Your task to perform on an android device: turn off javascript in the chrome app Image 0: 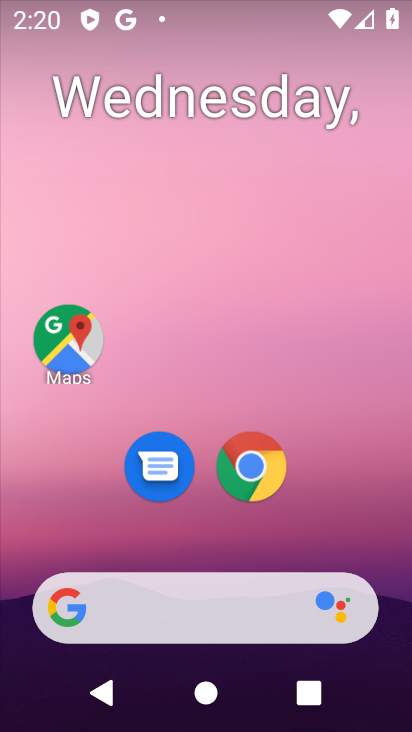
Step 0: click (259, 473)
Your task to perform on an android device: turn off javascript in the chrome app Image 1: 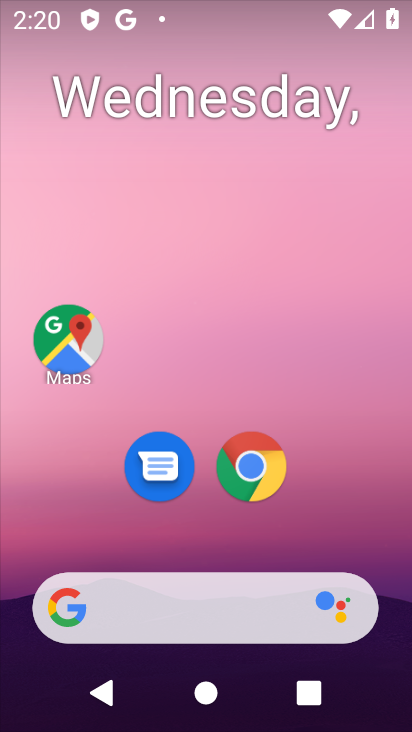
Step 1: click (259, 473)
Your task to perform on an android device: turn off javascript in the chrome app Image 2: 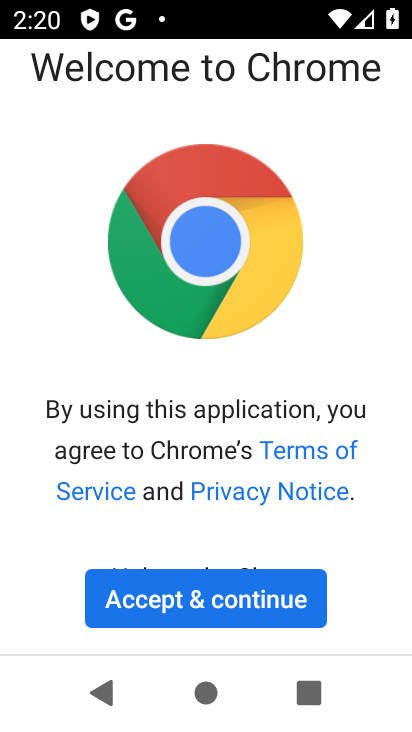
Step 2: click (243, 590)
Your task to perform on an android device: turn off javascript in the chrome app Image 3: 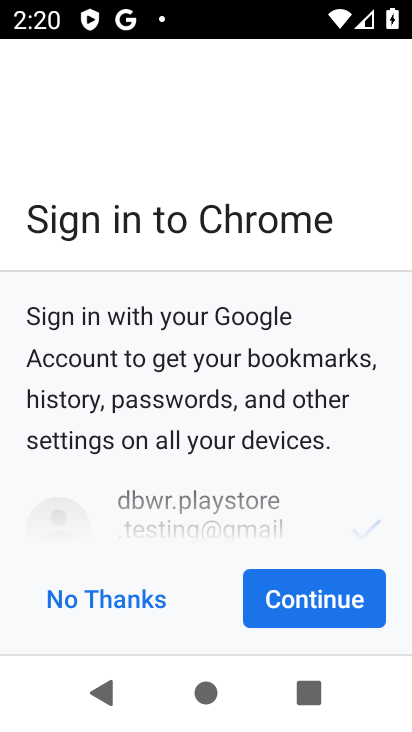
Step 3: click (273, 597)
Your task to perform on an android device: turn off javascript in the chrome app Image 4: 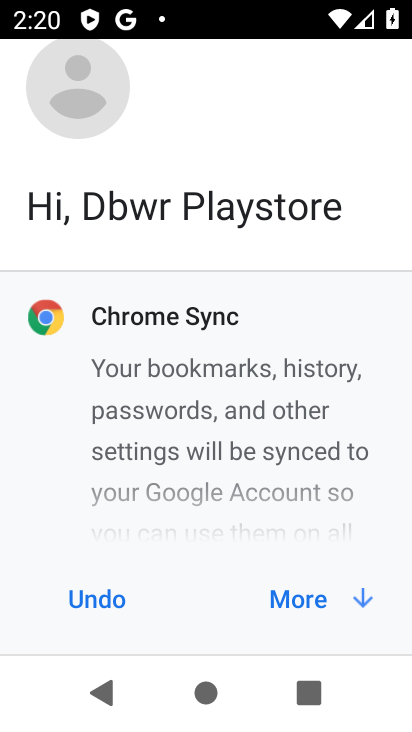
Step 4: click (273, 597)
Your task to perform on an android device: turn off javascript in the chrome app Image 5: 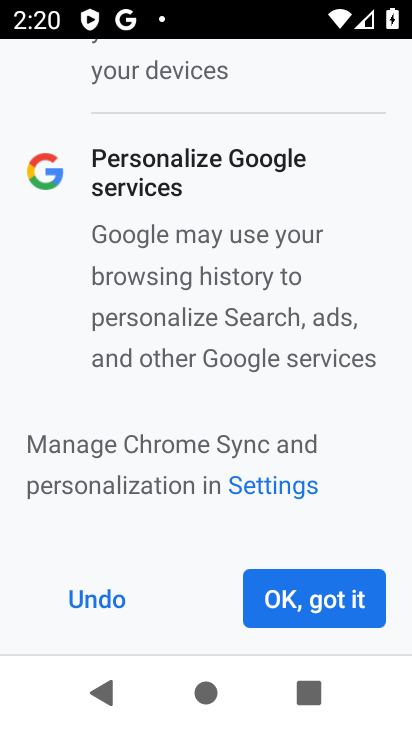
Step 5: click (273, 597)
Your task to perform on an android device: turn off javascript in the chrome app Image 6: 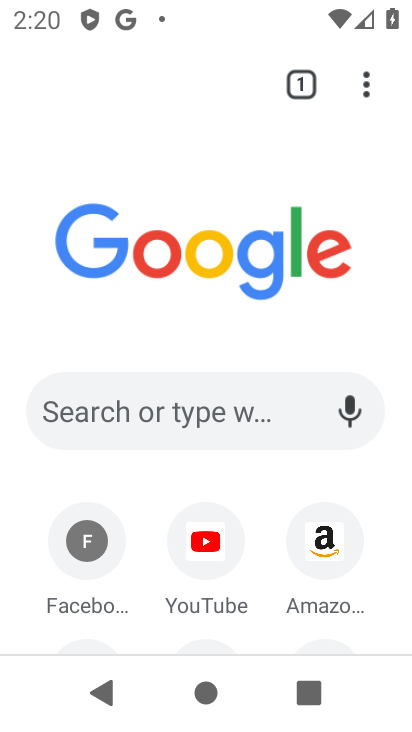
Step 6: click (370, 84)
Your task to perform on an android device: turn off javascript in the chrome app Image 7: 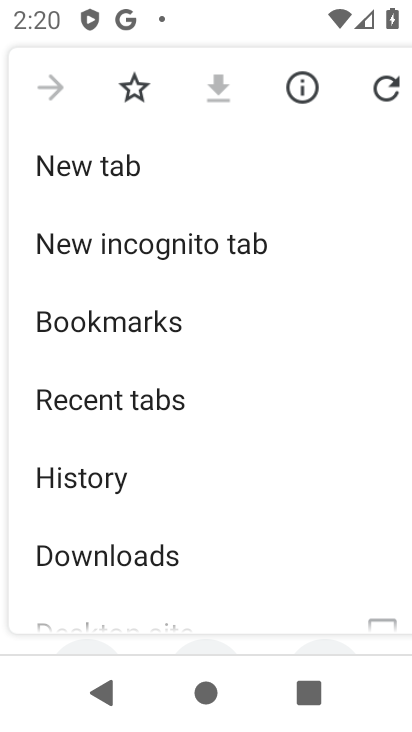
Step 7: drag from (198, 614) to (320, 24)
Your task to perform on an android device: turn off javascript in the chrome app Image 8: 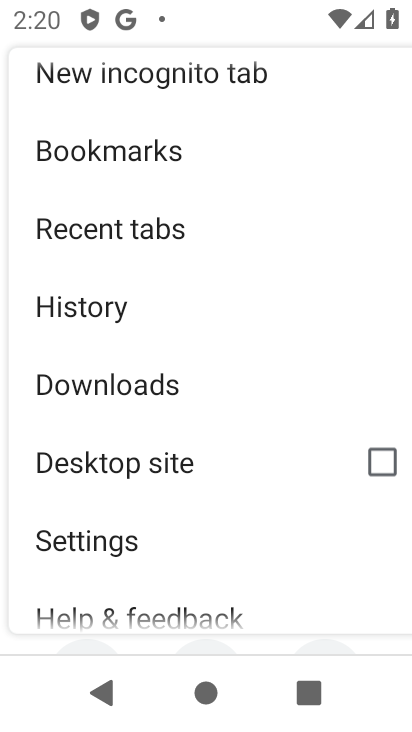
Step 8: click (195, 512)
Your task to perform on an android device: turn off javascript in the chrome app Image 9: 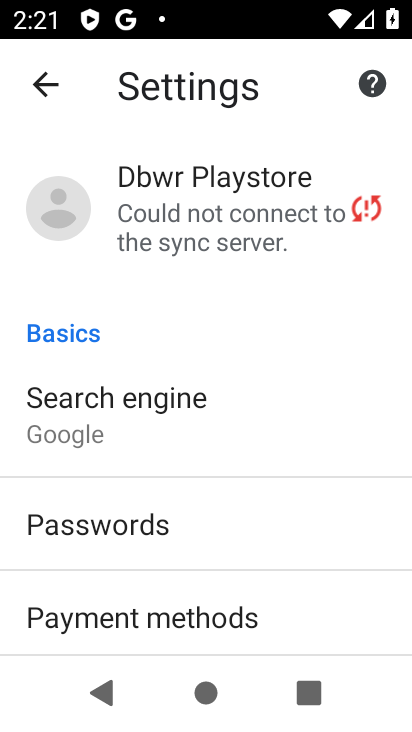
Step 9: drag from (245, 601) to (216, 187)
Your task to perform on an android device: turn off javascript in the chrome app Image 10: 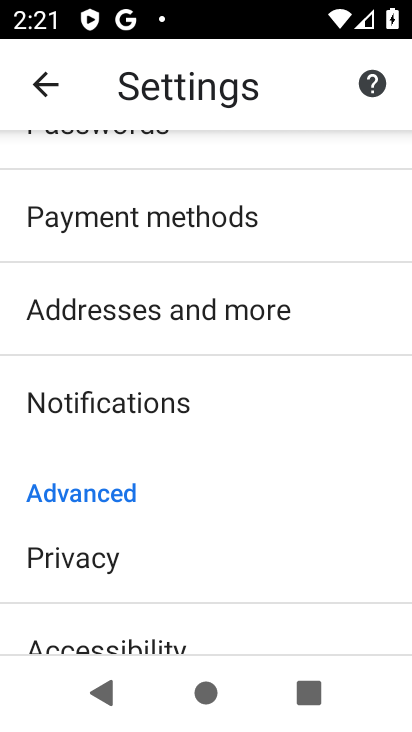
Step 10: drag from (233, 565) to (232, 211)
Your task to perform on an android device: turn off javascript in the chrome app Image 11: 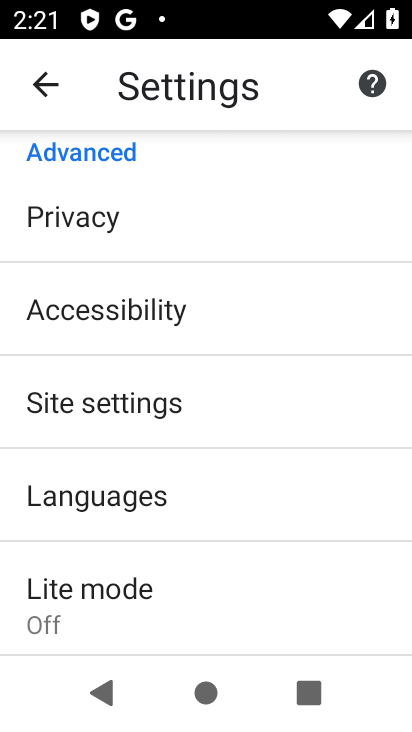
Step 11: click (216, 414)
Your task to perform on an android device: turn off javascript in the chrome app Image 12: 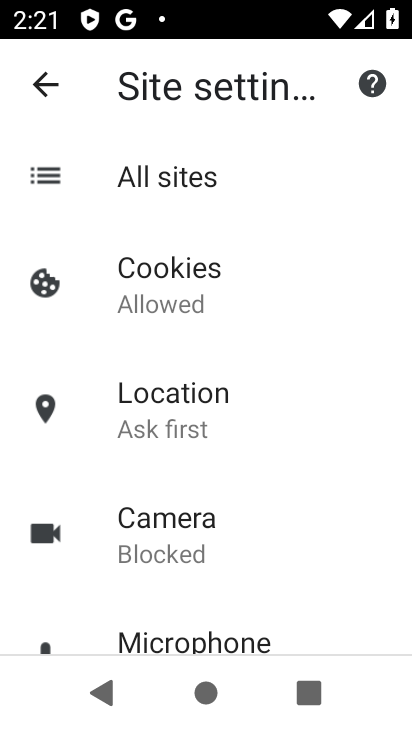
Step 12: drag from (263, 567) to (240, 121)
Your task to perform on an android device: turn off javascript in the chrome app Image 13: 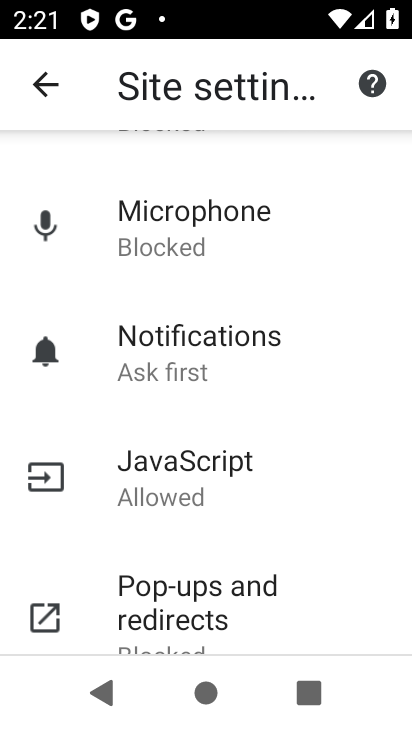
Step 13: click (227, 476)
Your task to perform on an android device: turn off javascript in the chrome app Image 14: 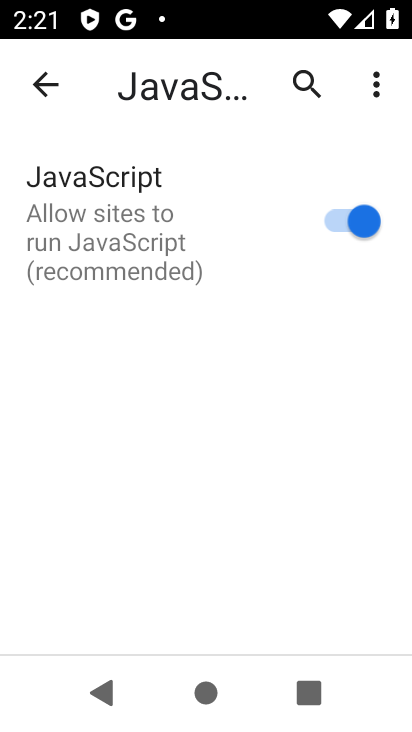
Step 14: click (343, 217)
Your task to perform on an android device: turn off javascript in the chrome app Image 15: 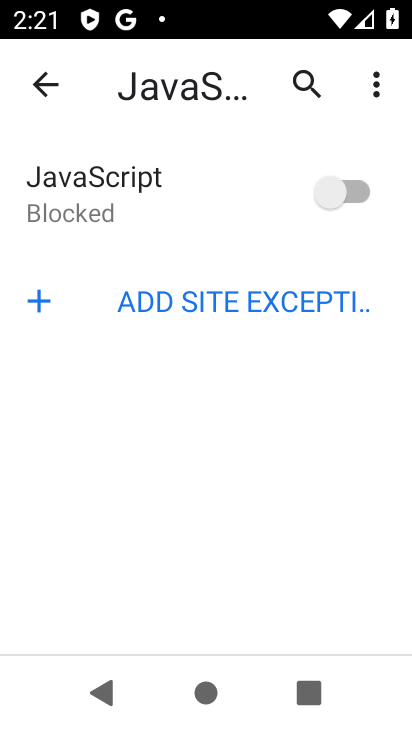
Step 15: task complete